Your task to perform on an android device: change the clock display to digital Image 0: 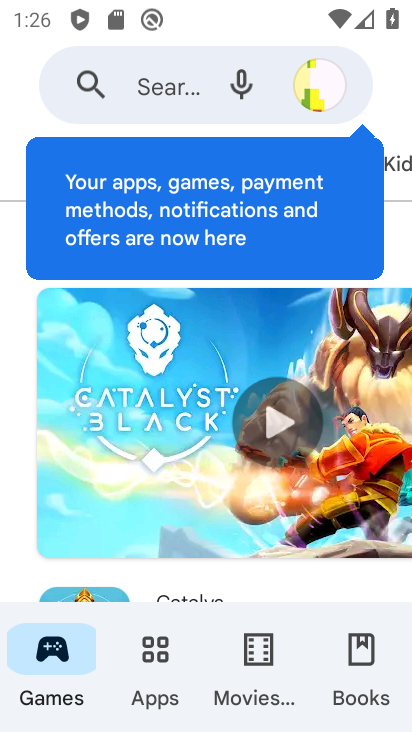
Step 0: press home button
Your task to perform on an android device: change the clock display to digital Image 1: 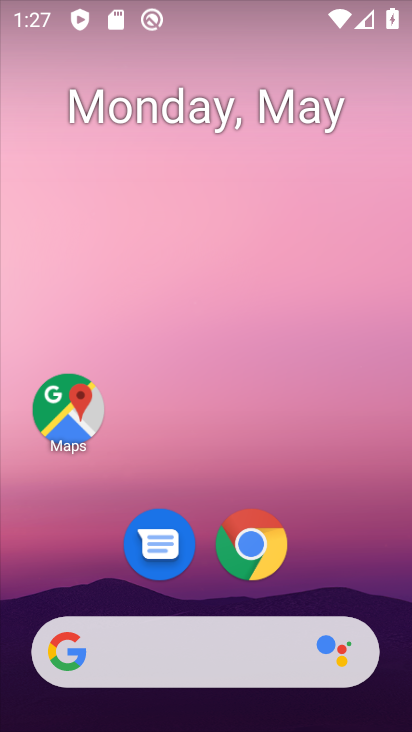
Step 1: drag from (379, 590) to (385, 335)
Your task to perform on an android device: change the clock display to digital Image 2: 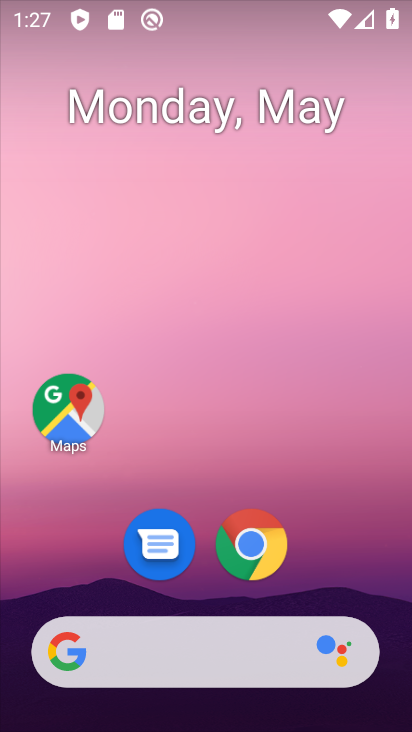
Step 2: drag from (373, 590) to (379, 111)
Your task to perform on an android device: change the clock display to digital Image 3: 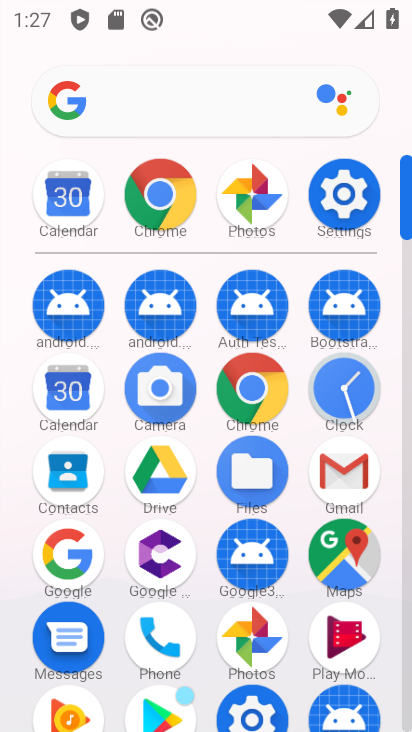
Step 3: click (374, 386)
Your task to perform on an android device: change the clock display to digital Image 4: 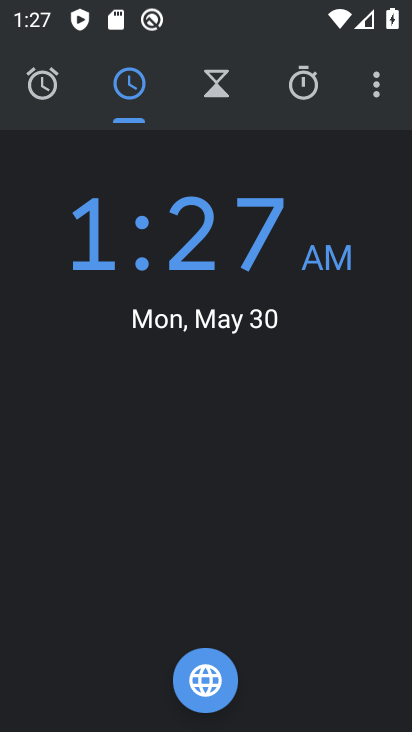
Step 4: click (374, 97)
Your task to perform on an android device: change the clock display to digital Image 5: 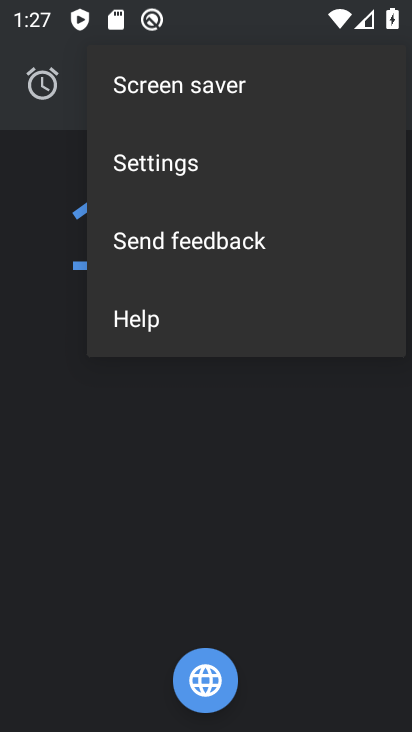
Step 5: click (235, 164)
Your task to perform on an android device: change the clock display to digital Image 6: 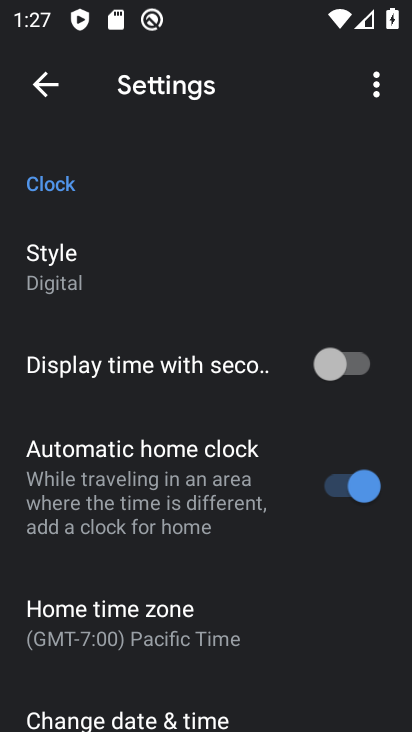
Step 6: task complete